Your task to perform on an android device: turn off location Image 0: 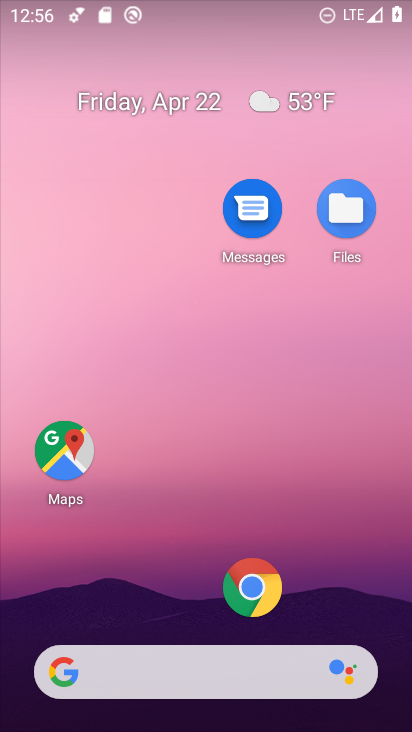
Step 0: drag from (190, 573) to (209, 268)
Your task to perform on an android device: turn off location Image 1: 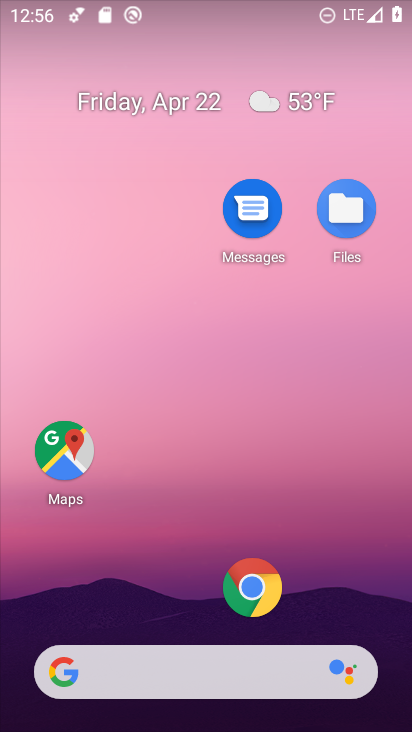
Step 1: drag from (186, 629) to (205, 183)
Your task to perform on an android device: turn off location Image 2: 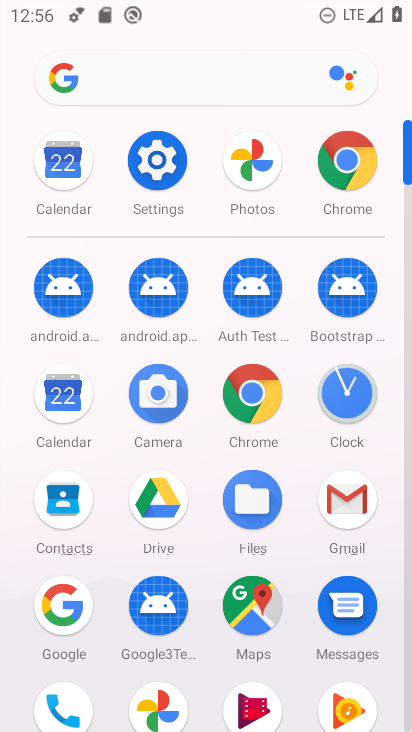
Step 2: click (153, 158)
Your task to perform on an android device: turn off location Image 3: 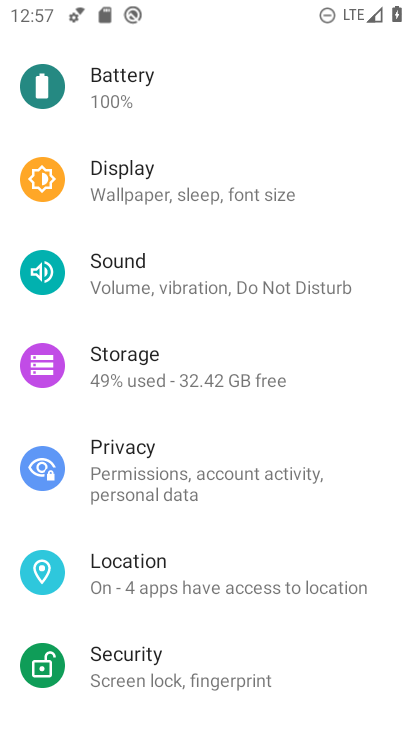
Step 3: drag from (216, 154) to (230, 197)
Your task to perform on an android device: turn off location Image 4: 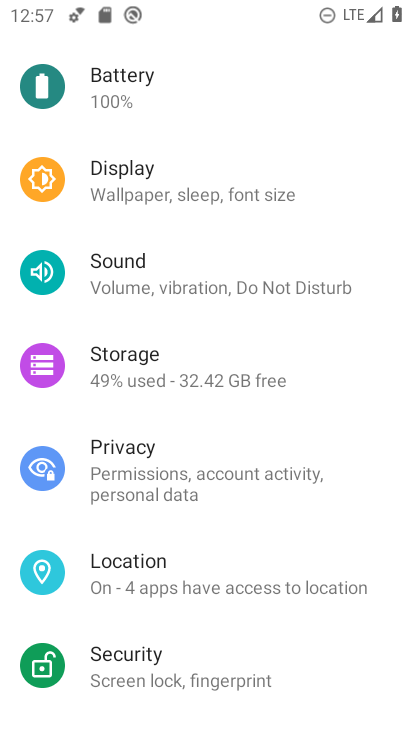
Step 4: click (235, 571)
Your task to perform on an android device: turn off location Image 5: 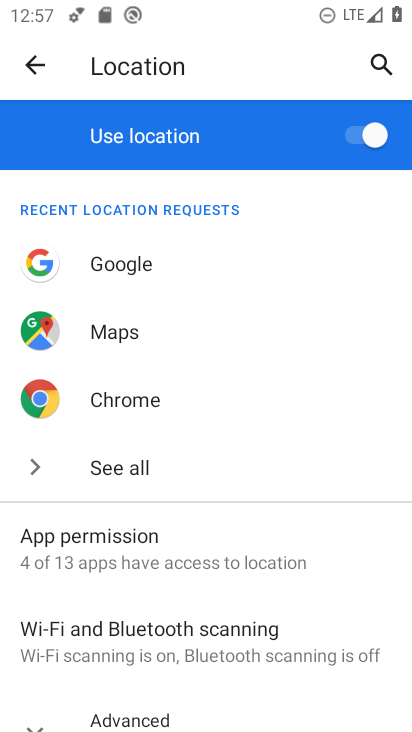
Step 5: click (371, 137)
Your task to perform on an android device: turn off location Image 6: 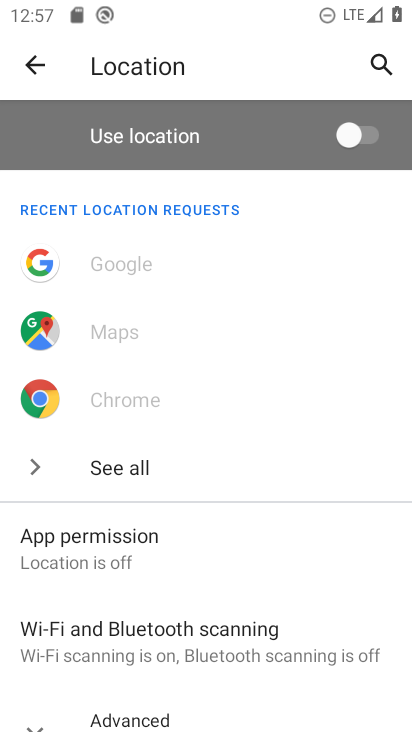
Step 6: task complete